Your task to perform on an android device: uninstall "Google Play Music" Image 0: 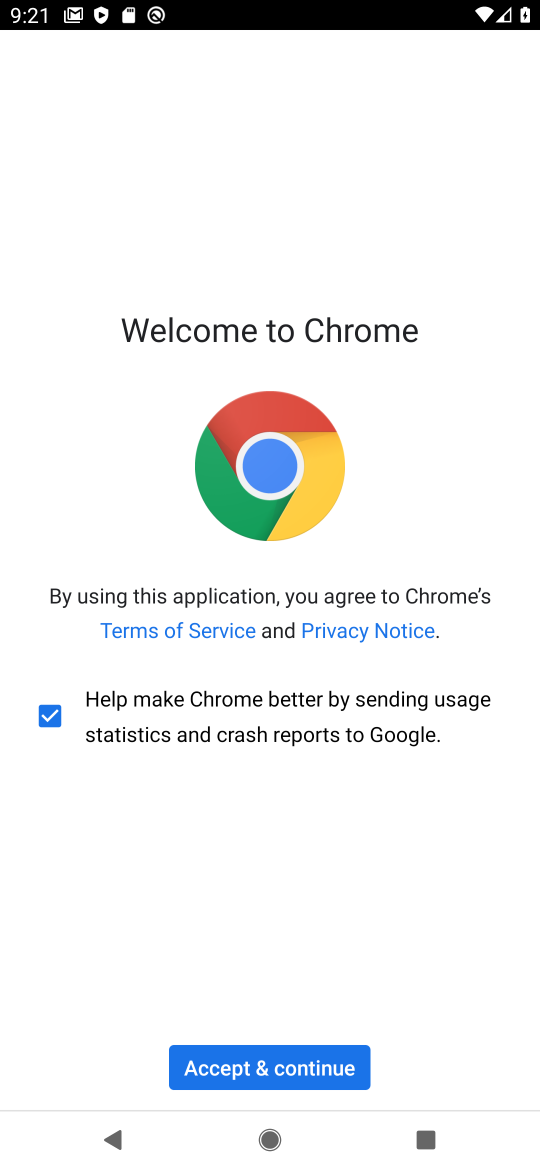
Step 0: press back button
Your task to perform on an android device: uninstall "Google Play Music" Image 1: 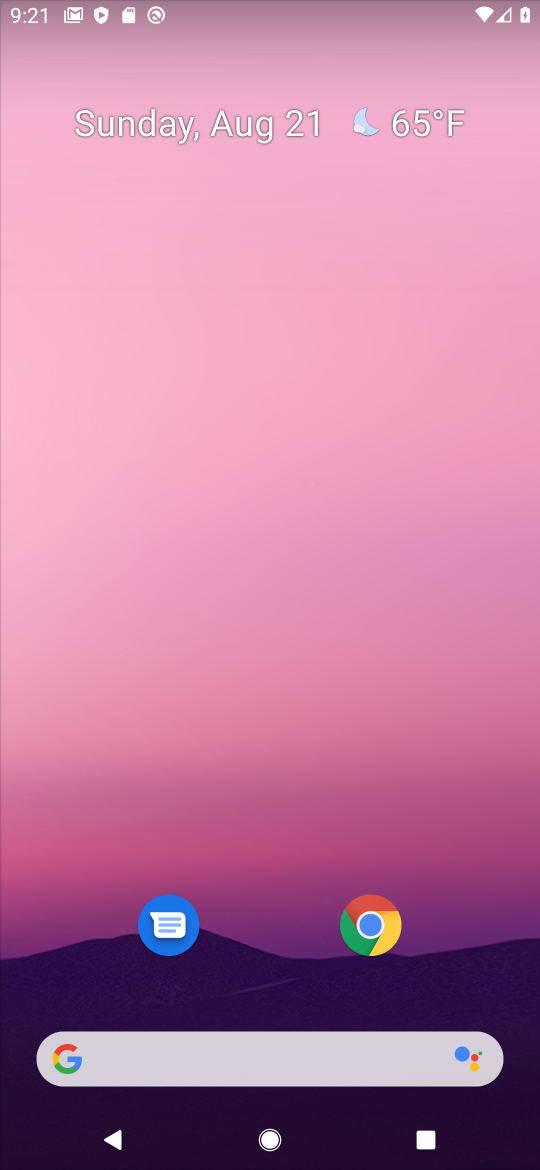
Step 1: drag from (293, 1029) to (399, 27)
Your task to perform on an android device: uninstall "Google Play Music" Image 2: 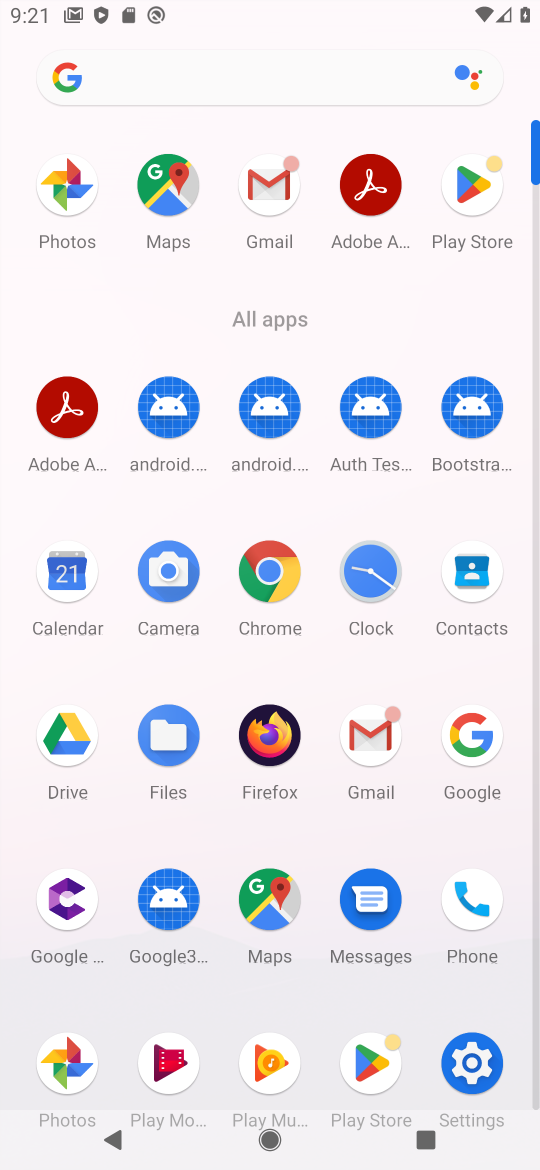
Step 2: click (475, 214)
Your task to perform on an android device: uninstall "Google Play Music" Image 3: 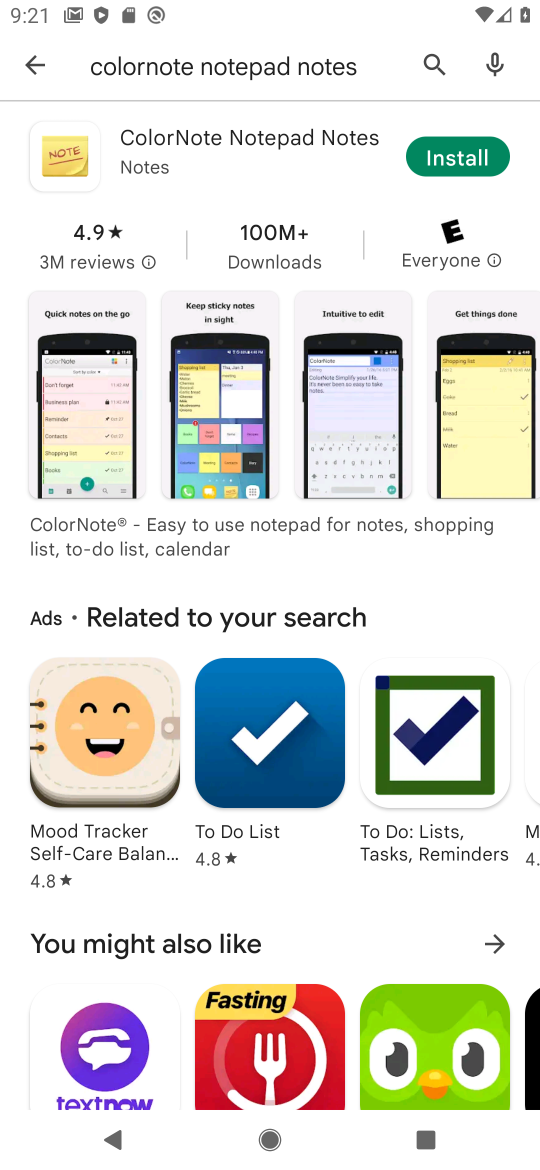
Step 3: click (436, 51)
Your task to perform on an android device: uninstall "Google Play Music" Image 4: 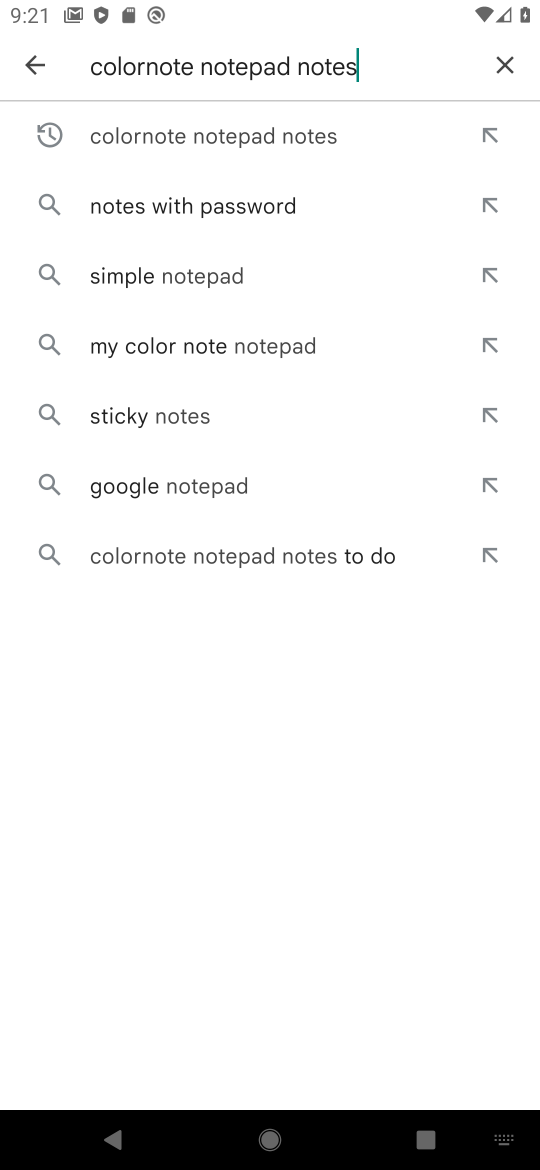
Step 4: click (503, 69)
Your task to perform on an android device: uninstall "Google Play Music" Image 5: 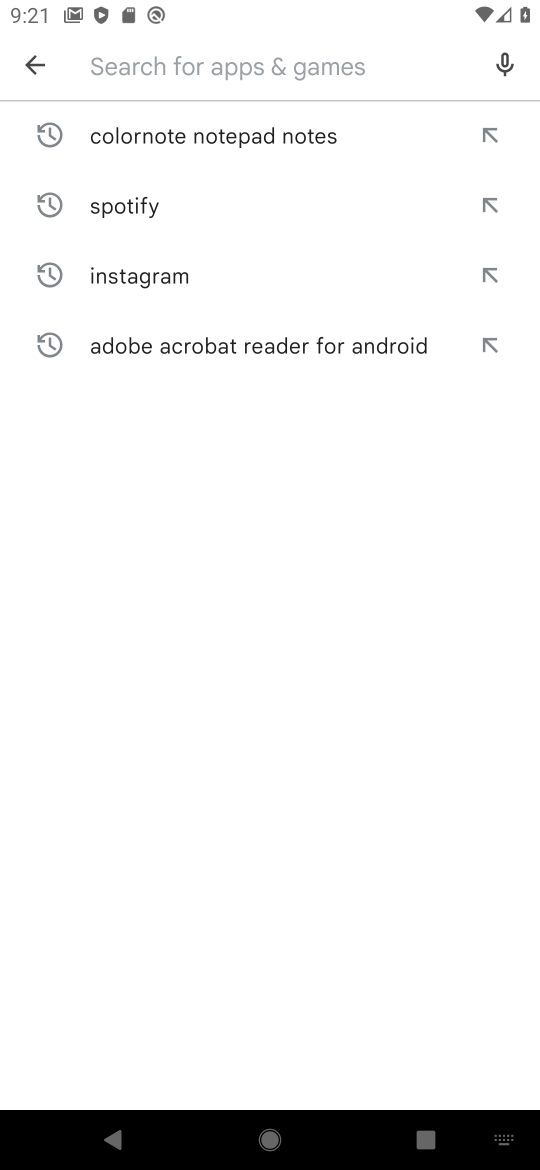
Step 5: click (158, 58)
Your task to perform on an android device: uninstall "Google Play Music" Image 6: 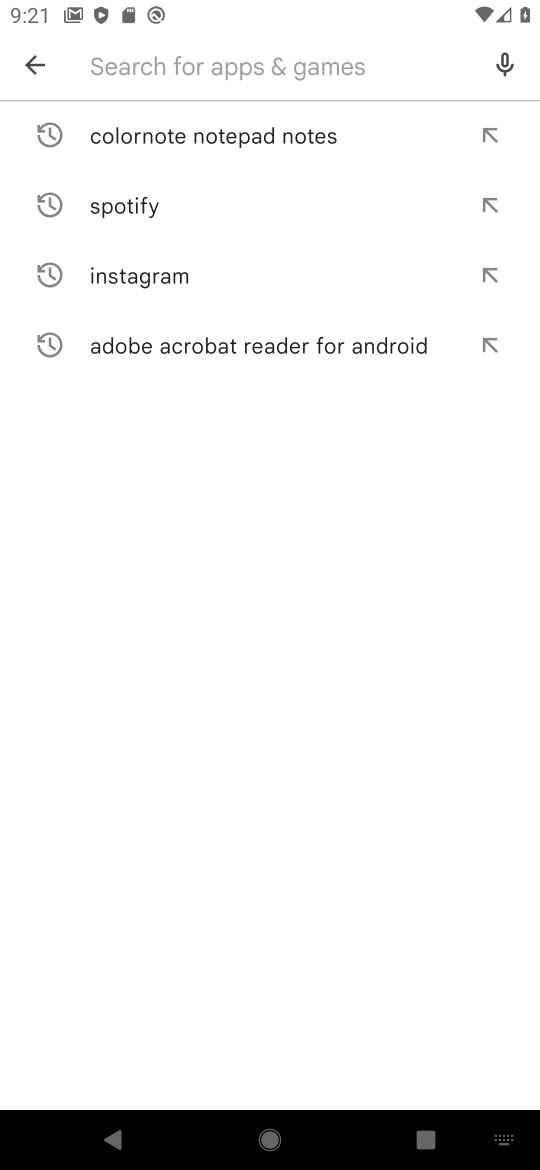
Step 6: type "Google Play Music"
Your task to perform on an android device: uninstall "Google Play Music" Image 7: 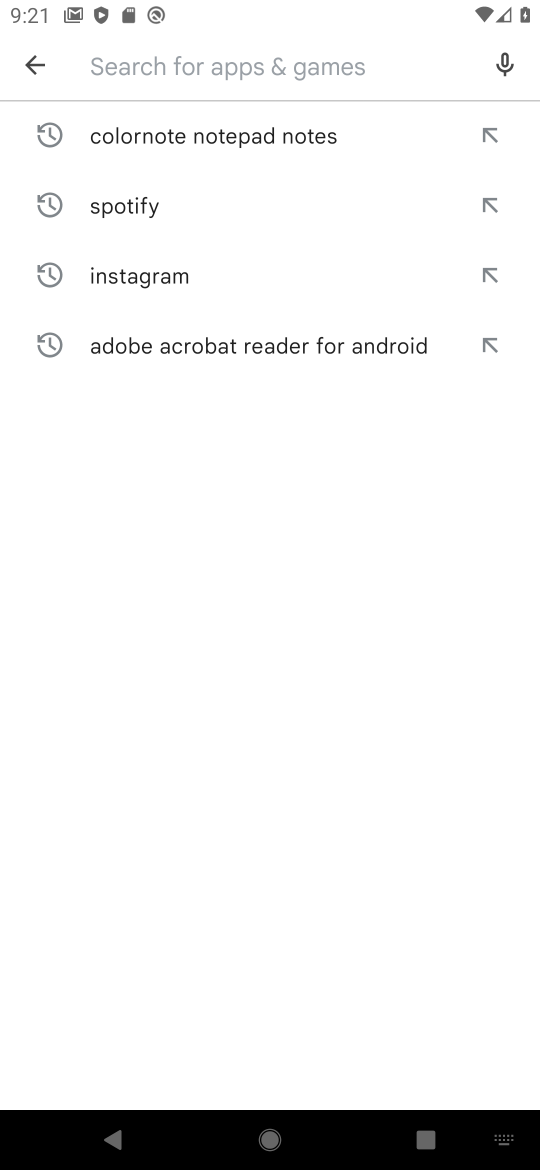
Step 7: click (247, 586)
Your task to perform on an android device: uninstall "Google Play Music" Image 8: 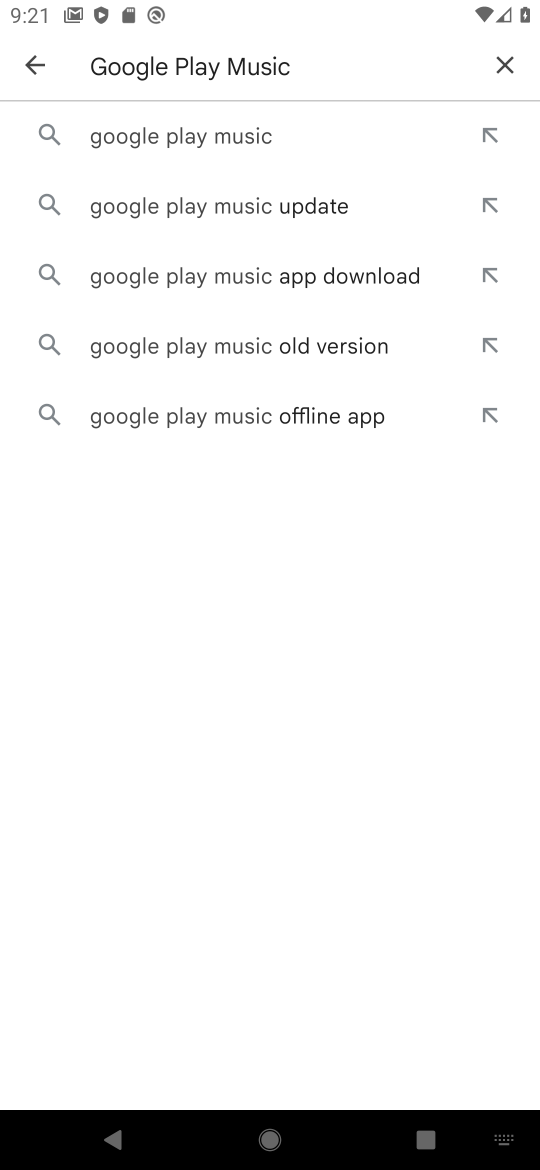
Step 8: click (196, 136)
Your task to perform on an android device: uninstall "Google Play Music" Image 9: 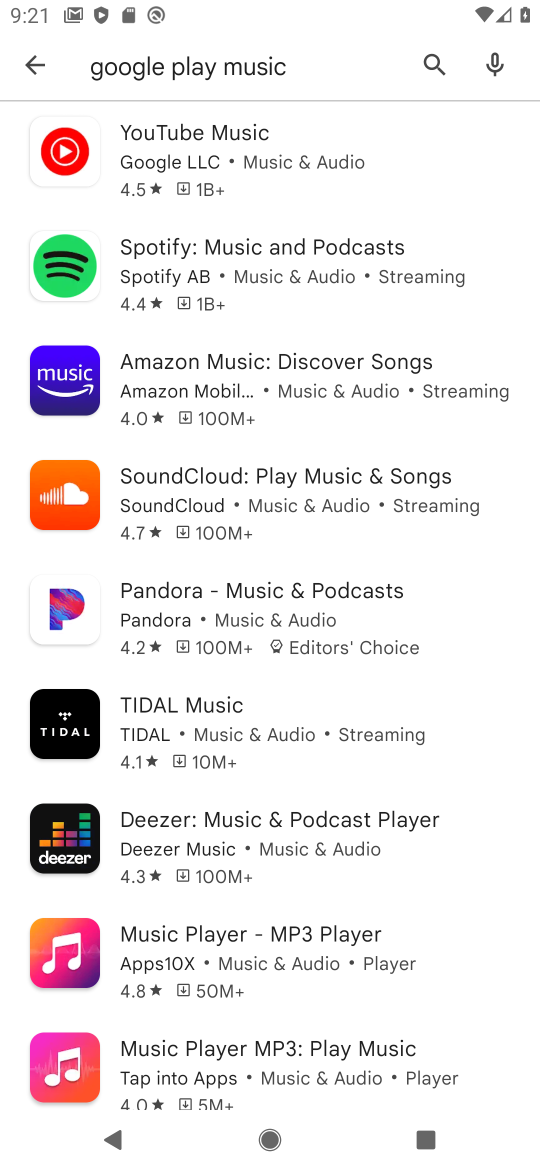
Step 9: task complete